Your task to perform on an android device: View the shopping cart on newegg.com. Add "razer blade" to the cart on newegg.com Image 0: 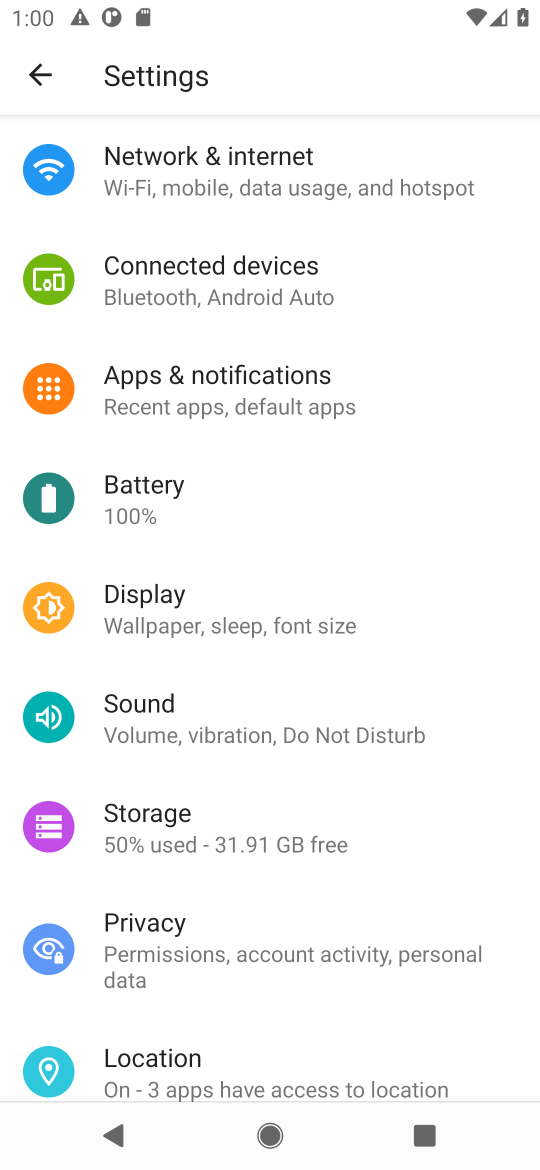
Step 0: press home button
Your task to perform on an android device: View the shopping cart on newegg.com. Add "razer blade" to the cart on newegg.com Image 1: 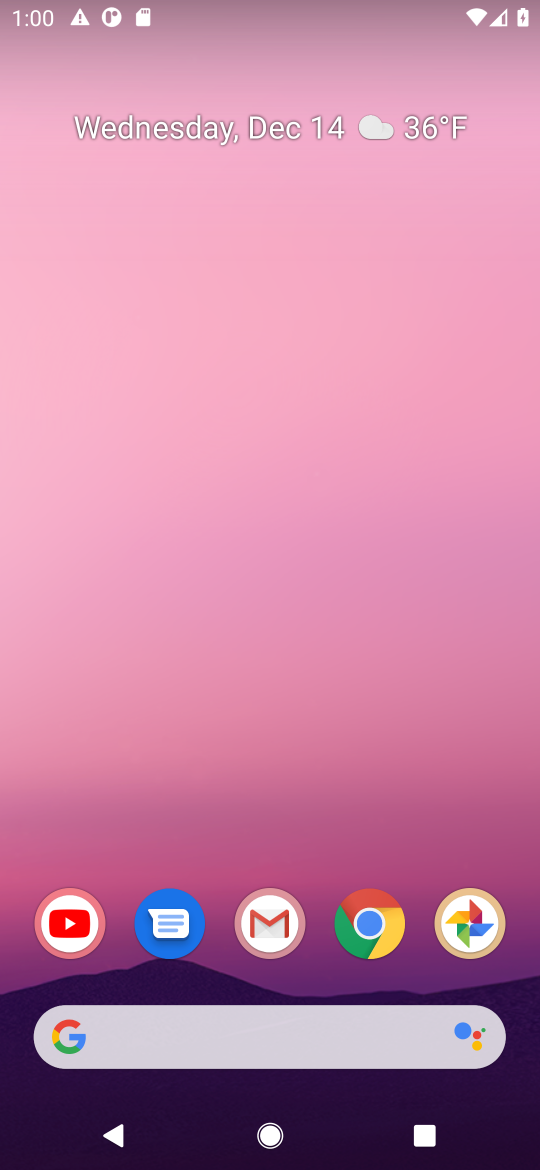
Step 1: click (383, 899)
Your task to perform on an android device: View the shopping cart on newegg.com. Add "razer blade" to the cart on newegg.com Image 2: 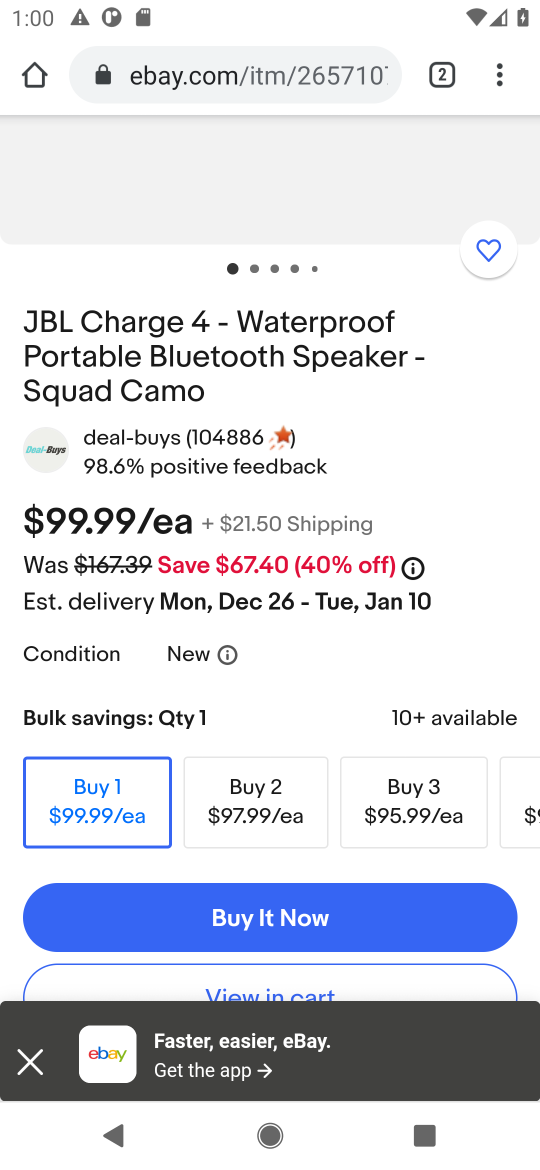
Step 2: click (228, 85)
Your task to perform on an android device: View the shopping cart on newegg.com. Add "razer blade" to the cart on newegg.com Image 3: 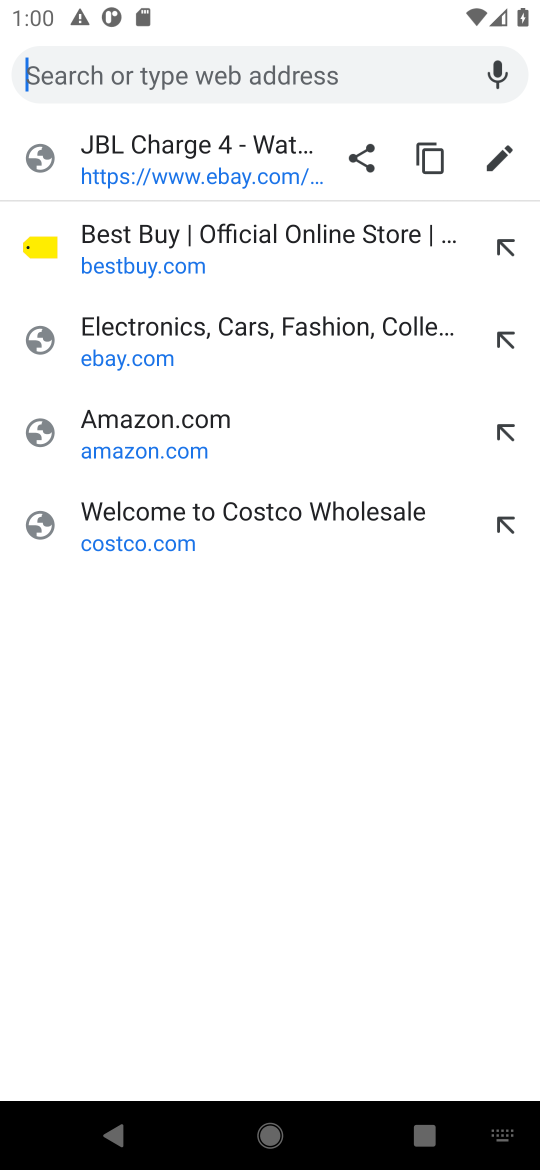
Step 3: type "newegg"
Your task to perform on an android device: View the shopping cart on newegg.com. Add "razer blade" to the cart on newegg.com Image 4: 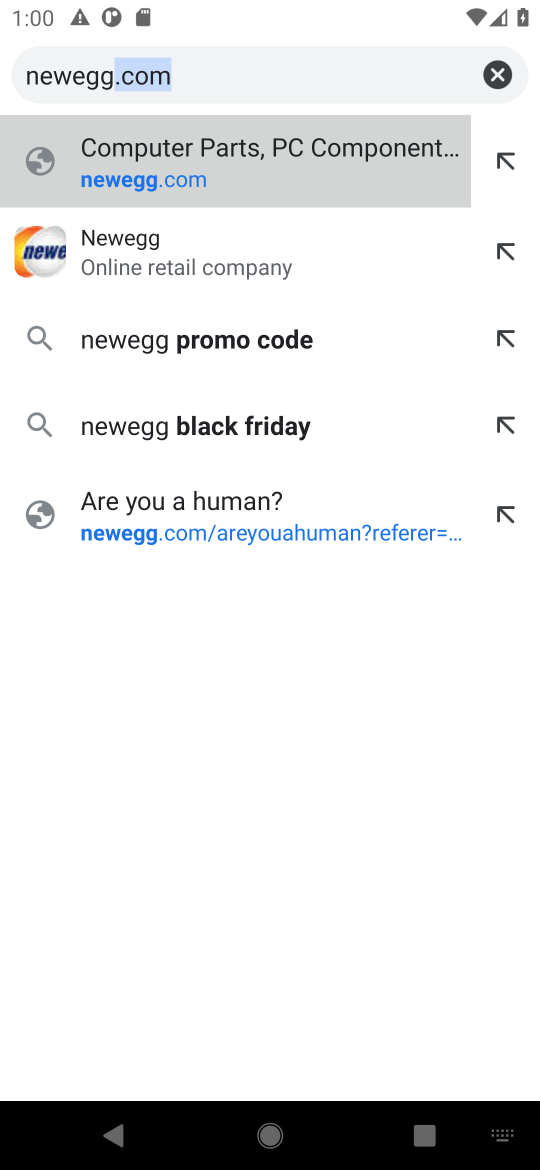
Step 4: click (213, 199)
Your task to perform on an android device: View the shopping cart on newegg.com. Add "razer blade" to the cart on newegg.com Image 5: 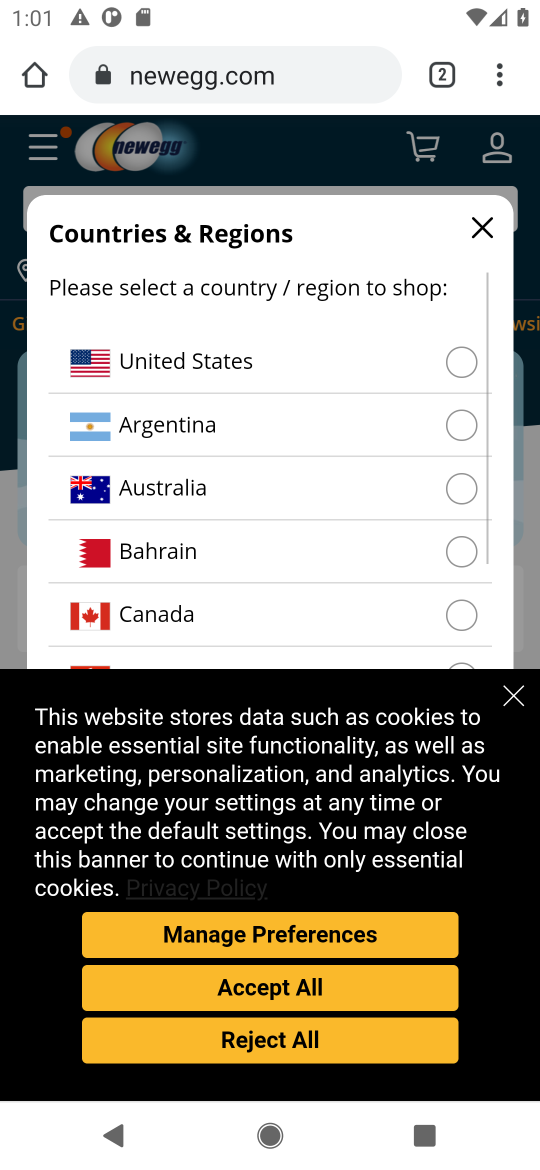
Step 5: click (193, 353)
Your task to perform on an android device: View the shopping cart on newegg.com. Add "razer blade" to the cart on newegg.com Image 6: 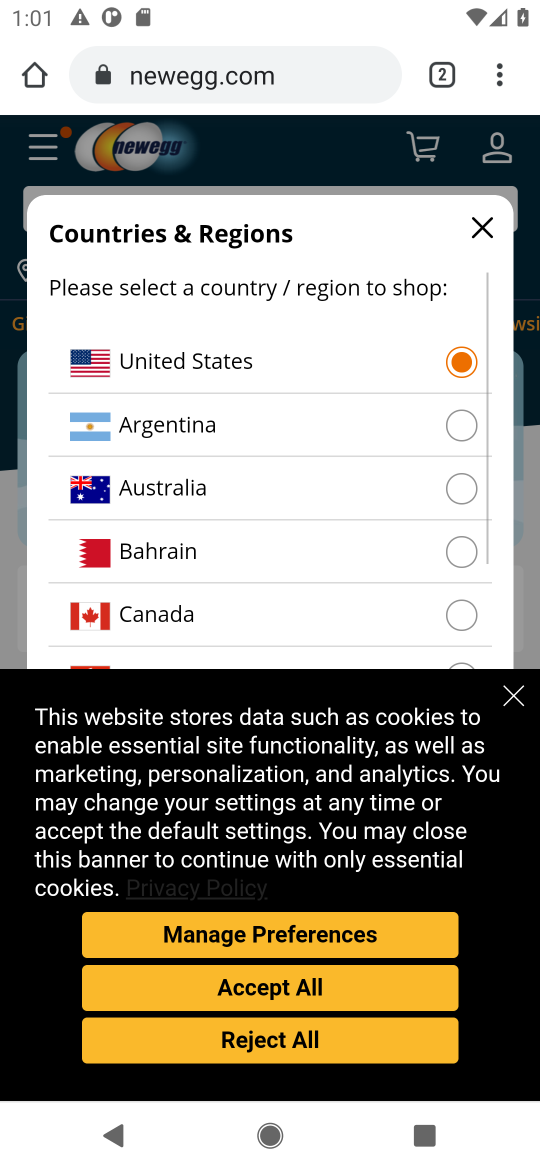
Step 6: click (364, 1010)
Your task to perform on an android device: View the shopping cart on newegg.com. Add "razer blade" to the cart on newegg.com Image 7: 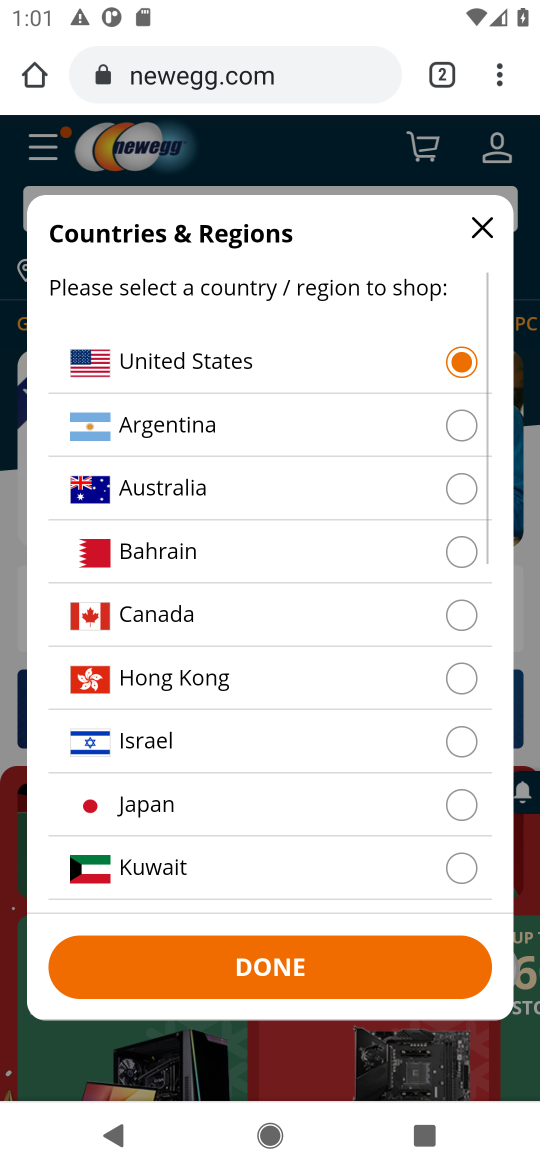
Step 7: click (231, 992)
Your task to perform on an android device: View the shopping cart on newegg.com. Add "razer blade" to the cart on newegg.com Image 8: 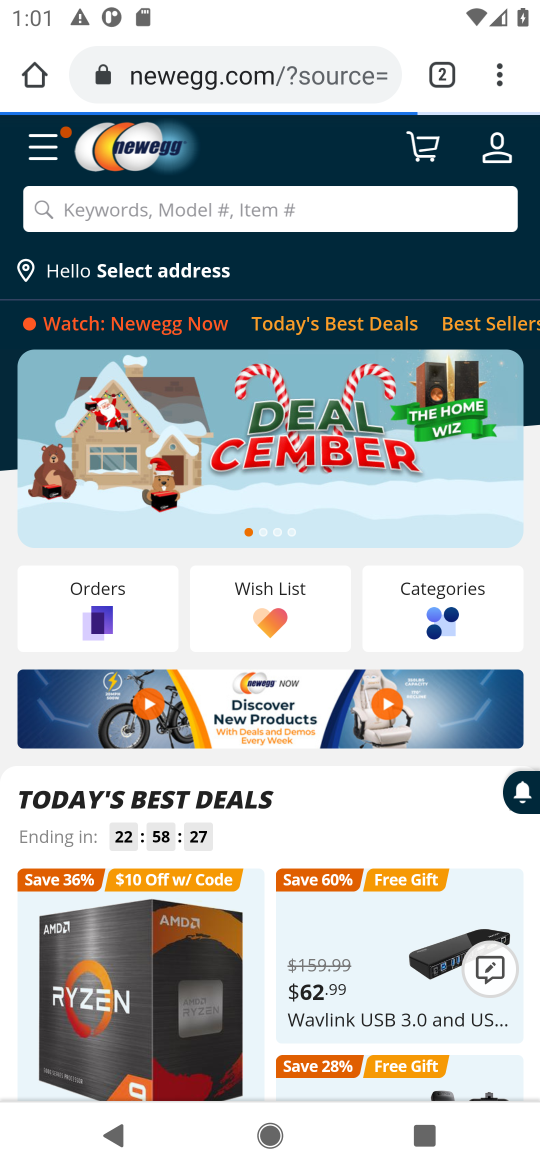
Step 8: click (201, 184)
Your task to perform on an android device: View the shopping cart on newegg.com. Add "razer blade" to the cart on newegg.com Image 9: 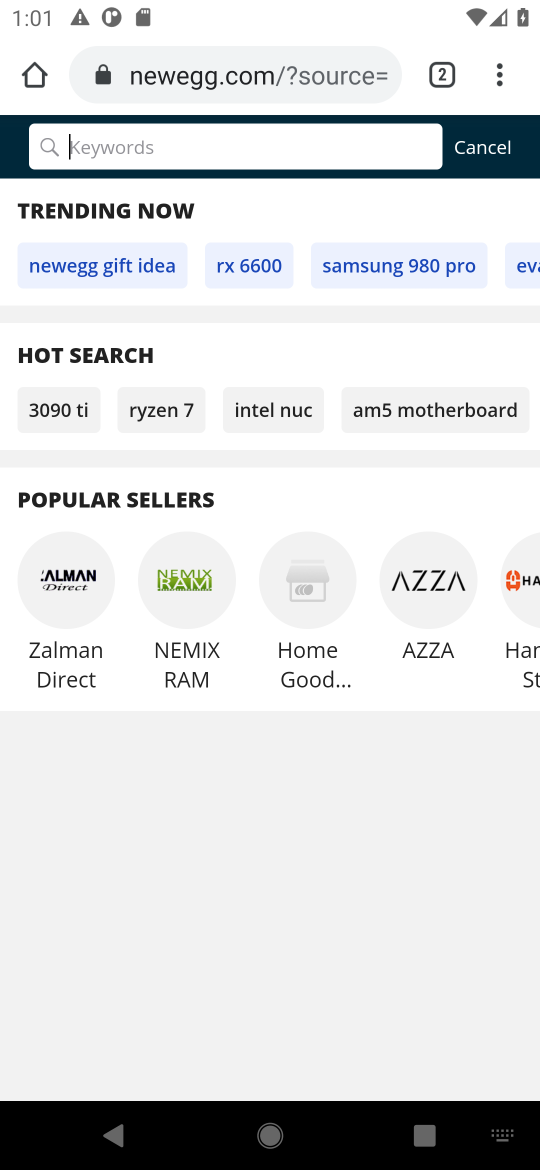
Step 9: type "razer blade"
Your task to perform on an android device: View the shopping cart on newegg.com. Add "razer blade" to the cart on newegg.com Image 10: 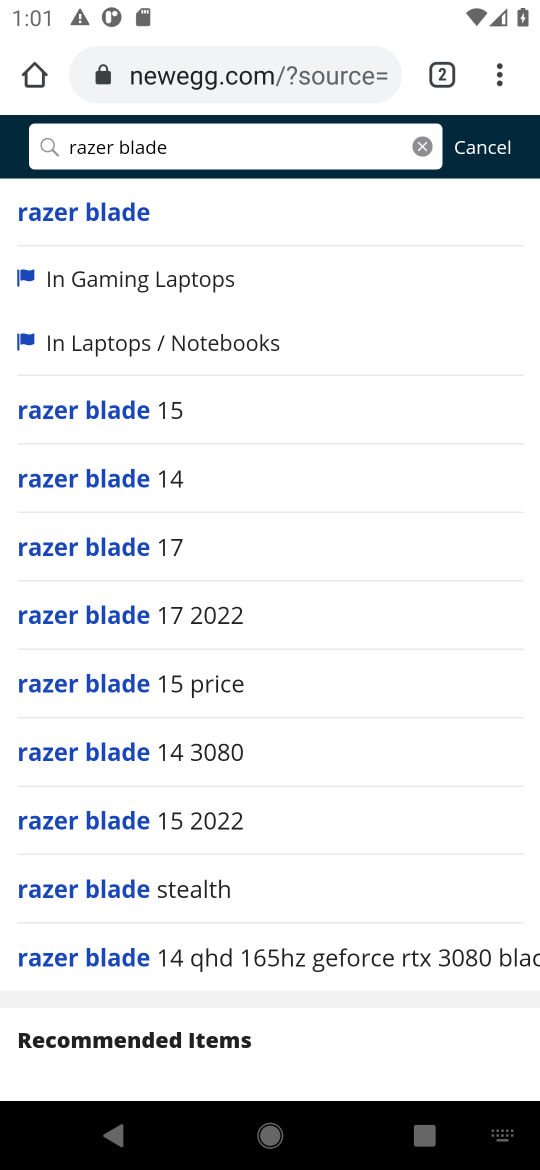
Step 10: click (46, 190)
Your task to perform on an android device: View the shopping cart on newegg.com. Add "razer blade" to the cart on newegg.com Image 11: 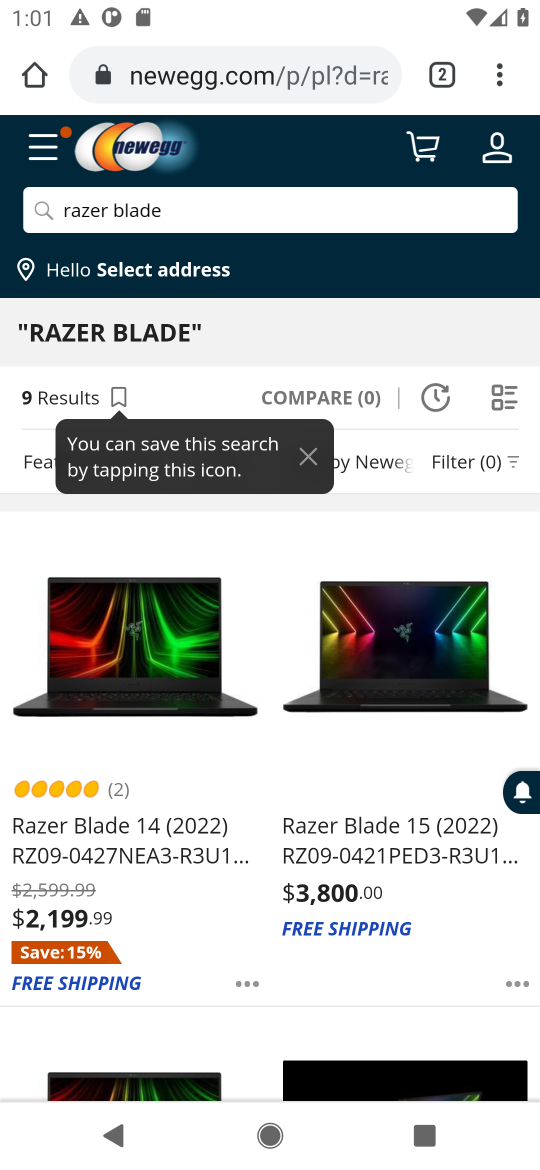
Step 11: click (229, 848)
Your task to perform on an android device: View the shopping cart on newegg.com. Add "razer blade" to the cart on newegg.com Image 12: 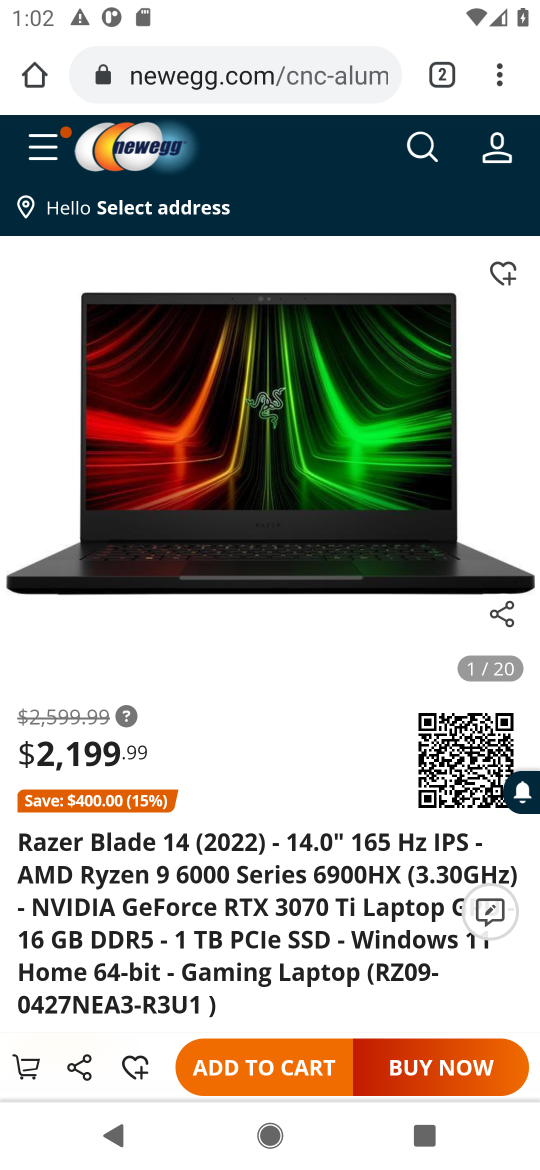
Step 12: click (206, 1062)
Your task to perform on an android device: View the shopping cart on newegg.com. Add "razer blade" to the cart on newegg.com Image 13: 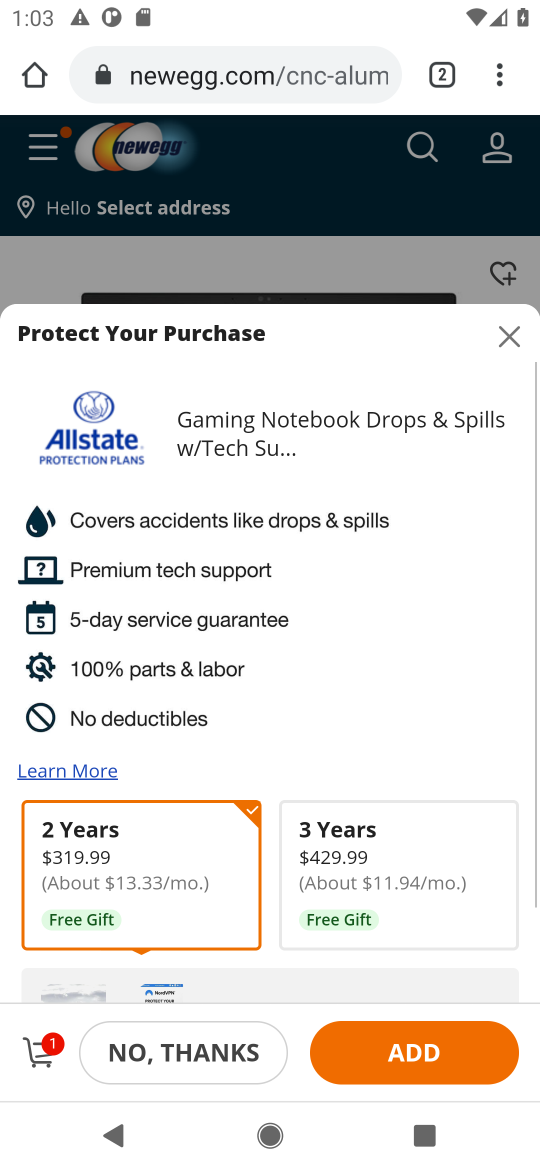
Step 13: click (459, 1048)
Your task to perform on an android device: View the shopping cart on newegg.com. Add "razer blade" to the cart on newegg.com Image 14: 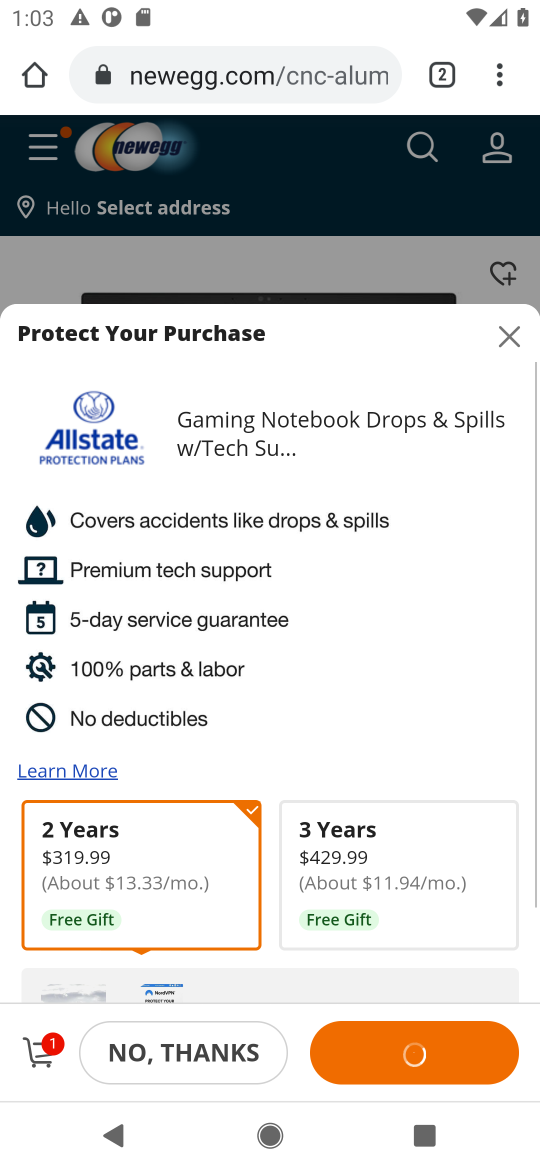
Step 14: task complete